Your task to perform on an android device: Go to settings Image 0: 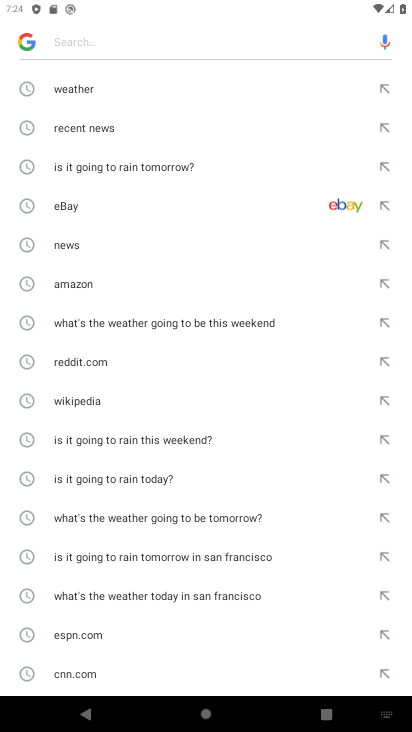
Step 0: press home button
Your task to perform on an android device: Go to settings Image 1: 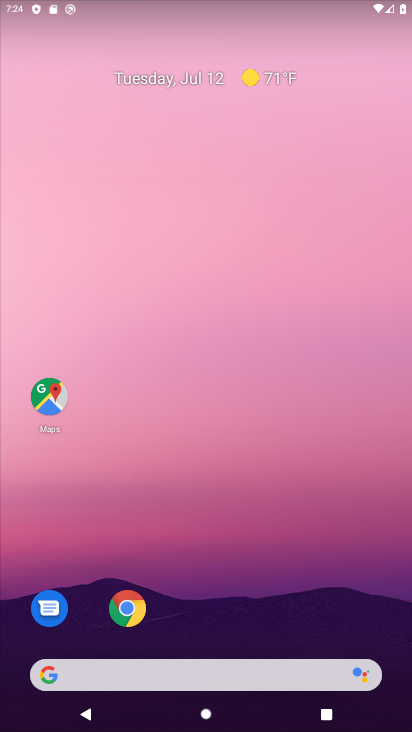
Step 1: drag from (231, 572) to (137, 67)
Your task to perform on an android device: Go to settings Image 2: 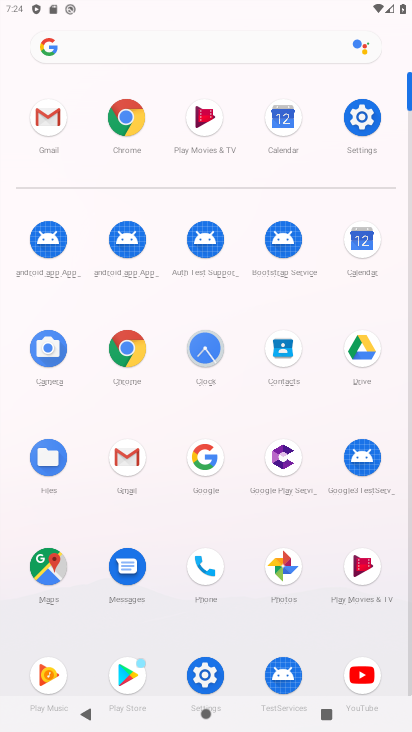
Step 2: click (362, 110)
Your task to perform on an android device: Go to settings Image 3: 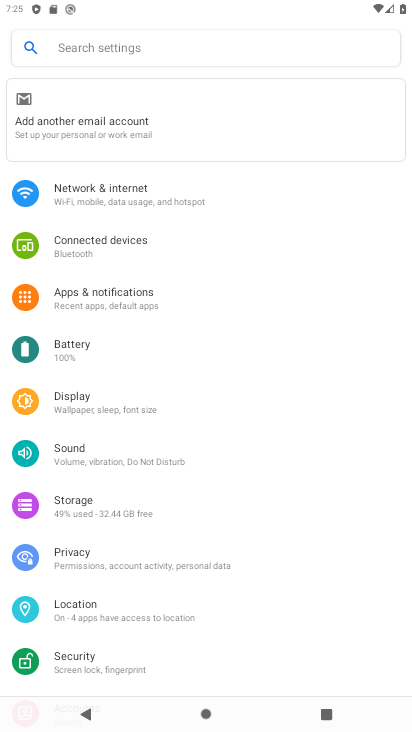
Step 3: task complete